Your task to perform on an android device: stop showing notifications on the lock screen Image 0: 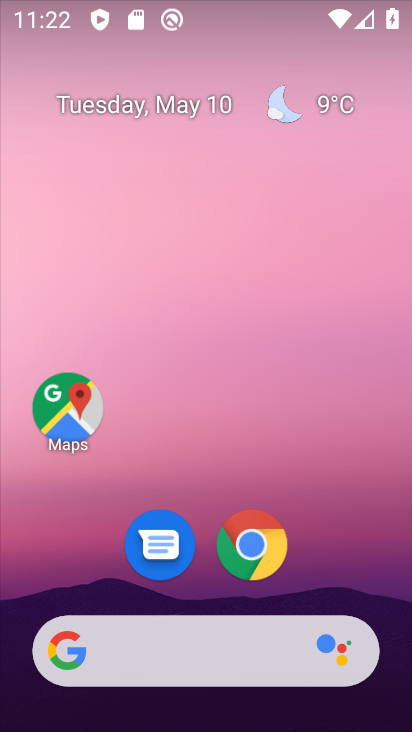
Step 0: drag from (179, 591) to (323, 47)
Your task to perform on an android device: stop showing notifications on the lock screen Image 1: 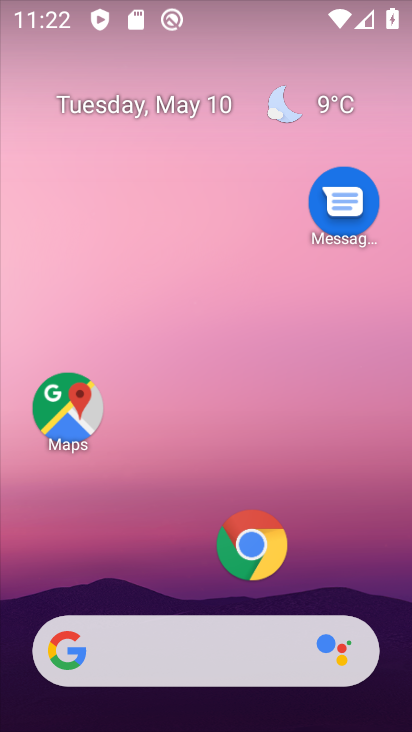
Step 1: drag from (159, 607) to (238, 90)
Your task to perform on an android device: stop showing notifications on the lock screen Image 2: 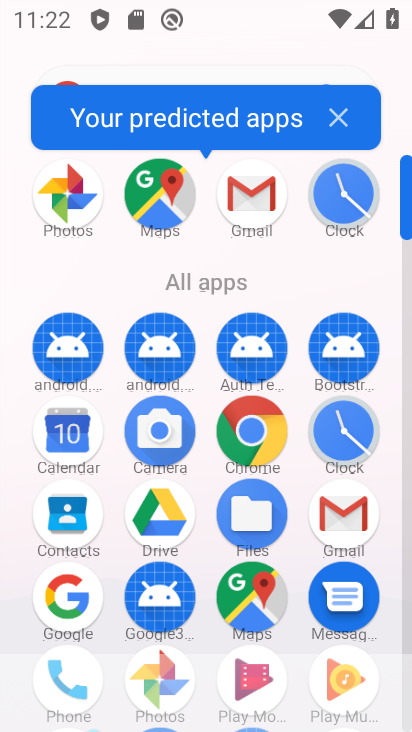
Step 2: drag from (167, 614) to (213, 327)
Your task to perform on an android device: stop showing notifications on the lock screen Image 3: 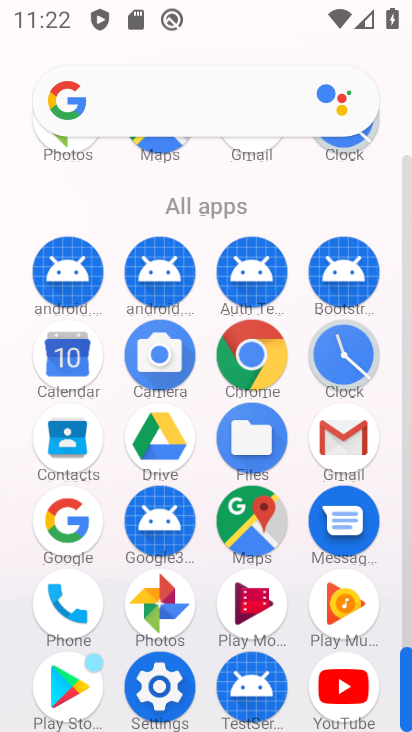
Step 3: click (162, 682)
Your task to perform on an android device: stop showing notifications on the lock screen Image 4: 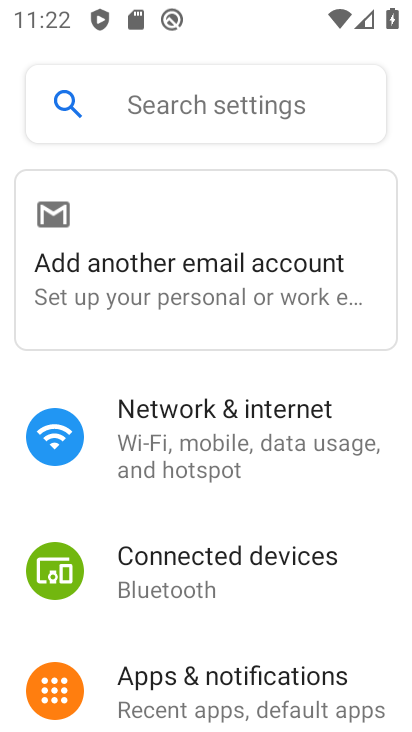
Step 4: drag from (131, 678) to (248, 173)
Your task to perform on an android device: stop showing notifications on the lock screen Image 5: 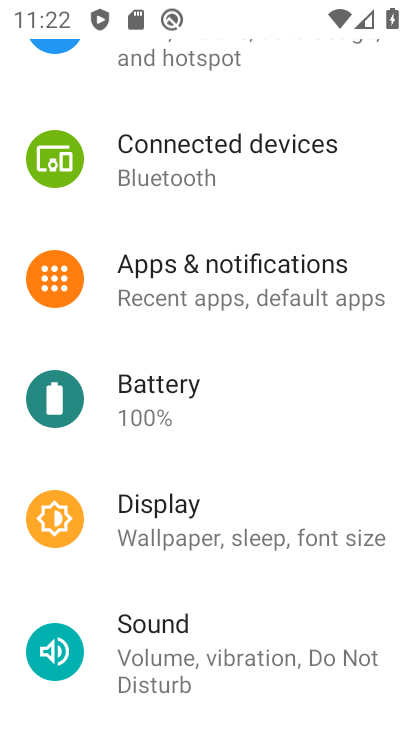
Step 5: drag from (162, 653) to (225, 248)
Your task to perform on an android device: stop showing notifications on the lock screen Image 6: 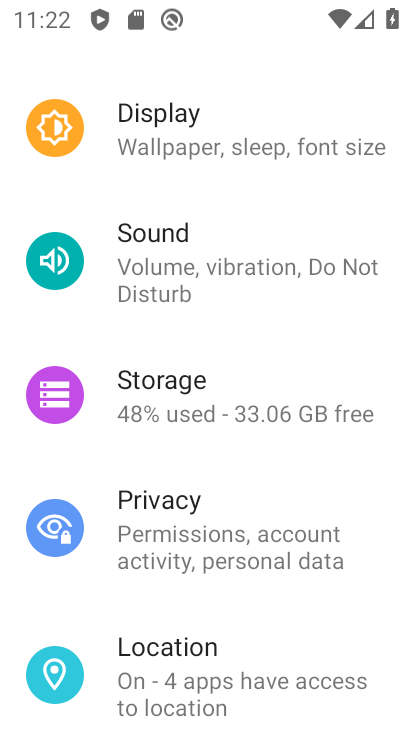
Step 6: drag from (276, 178) to (274, 670)
Your task to perform on an android device: stop showing notifications on the lock screen Image 7: 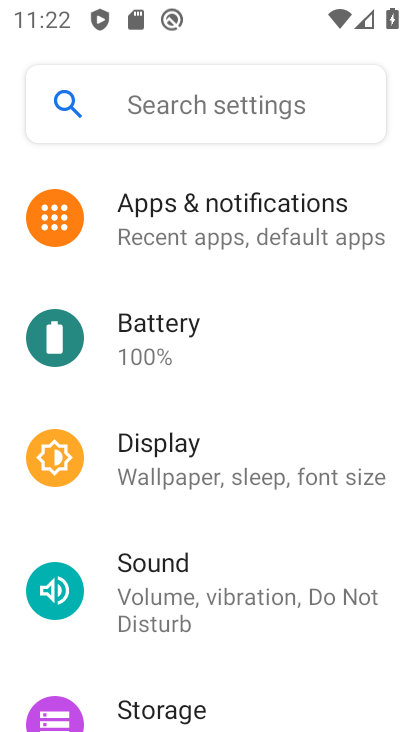
Step 7: drag from (264, 290) to (255, 561)
Your task to perform on an android device: stop showing notifications on the lock screen Image 8: 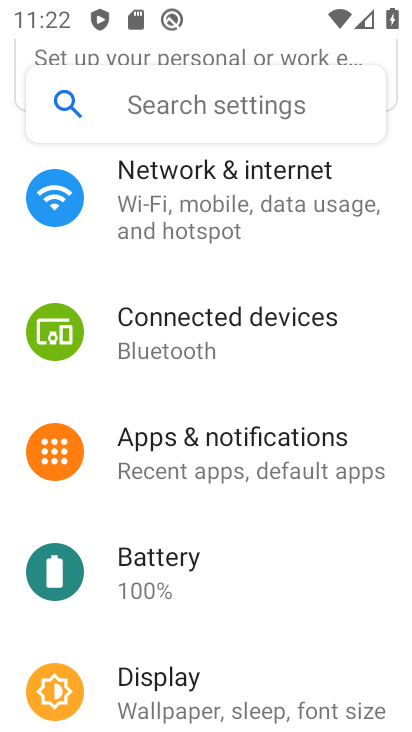
Step 8: click (243, 471)
Your task to perform on an android device: stop showing notifications on the lock screen Image 9: 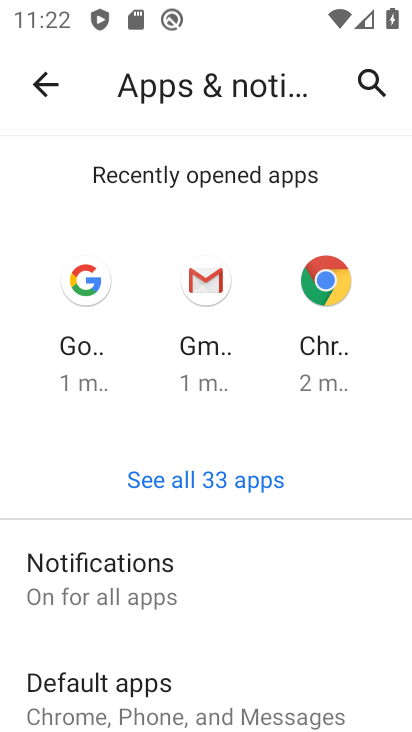
Step 9: drag from (215, 658) to (234, 571)
Your task to perform on an android device: stop showing notifications on the lock screen Image 10: 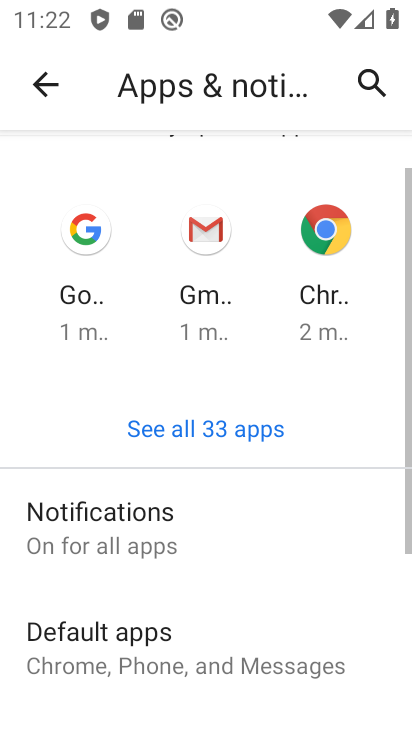
Step 10: click (222, 543)
Your task to perform on an android device: stop showing notifications on the lock screen Image 11: 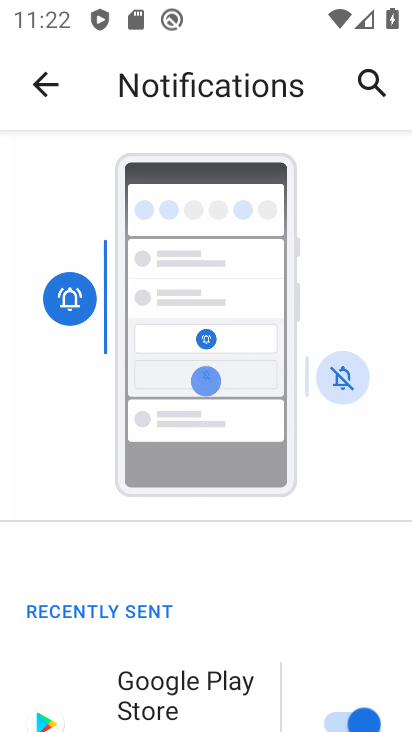
Step 11: drag from (171, 694) to (302, 172)
Your task to perform on an android device: stop showing notifications on the lock screen Image 12: 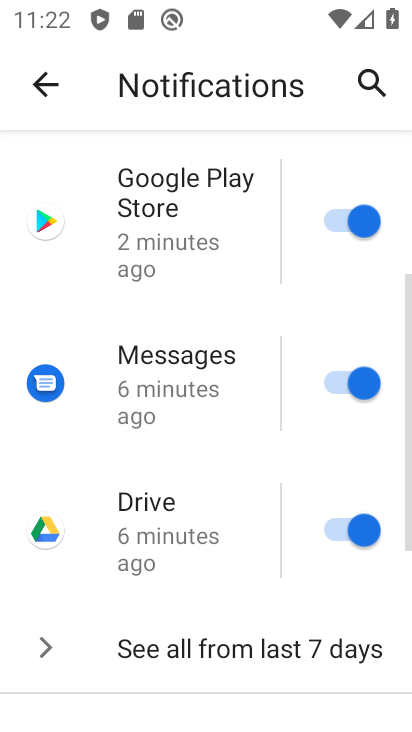
Step 12: drag from (210, 672) to (312, 203)
Your task to perform on an android device: stop showing notifications on the lock screen Image 13: 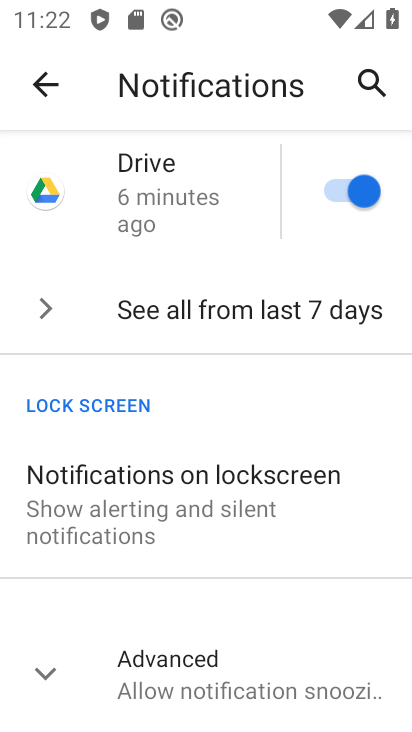
Step 13: click (215, 467)
Your task to perform on an android device: stop showing notifications on the lock screen Image 14: 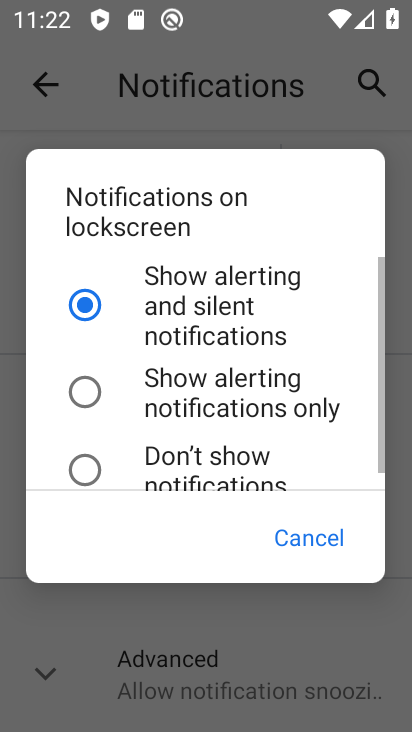
Step 14: click (213, 447)
Your task to perform on an android device: stop showing notifications on the lock screen Image 15: 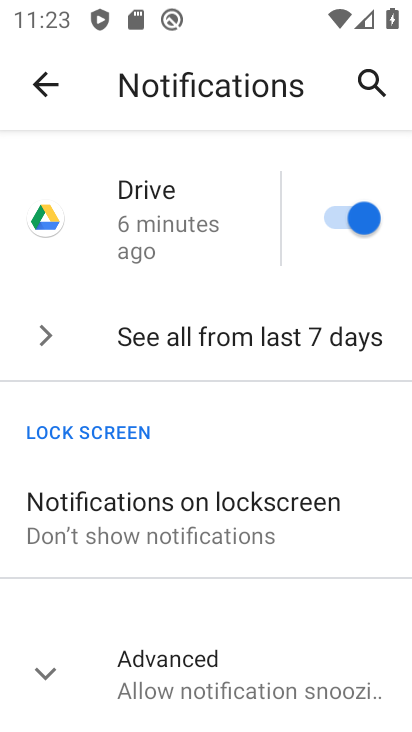
Step 15: task complete